Your task to perform on an android device: Open Youtube and go to the subscriptions tab Image 0: 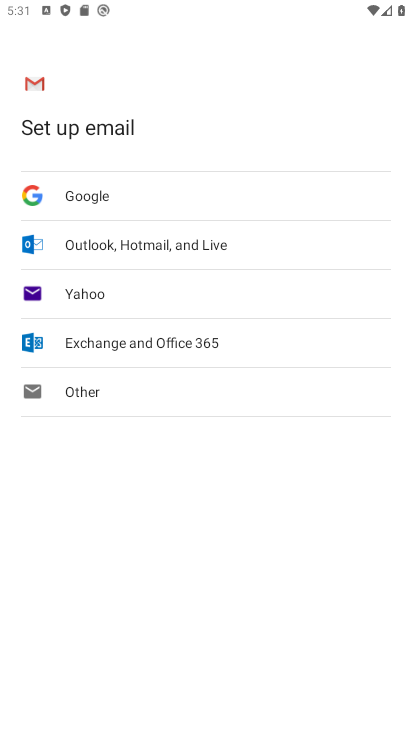
Step 0: press home button
Your task to perform on an android device: Open Youtube and go to the subscriptions tab Image 1: 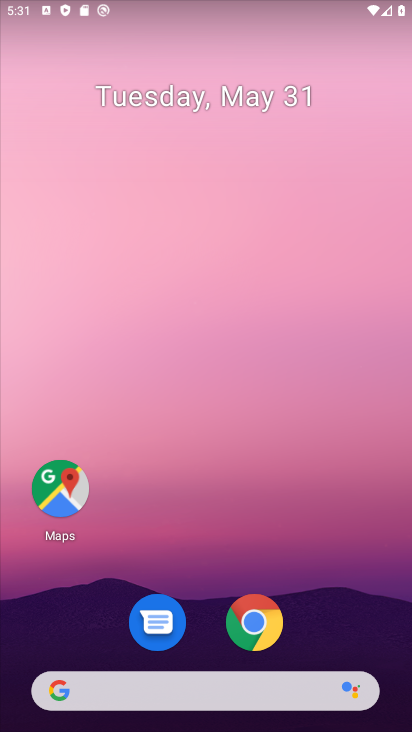
Step 1: drag from (284, 700) to (320, 85)
Your task to perform on an android device: Open Youtube and go to the subscriptions tab Image 2: 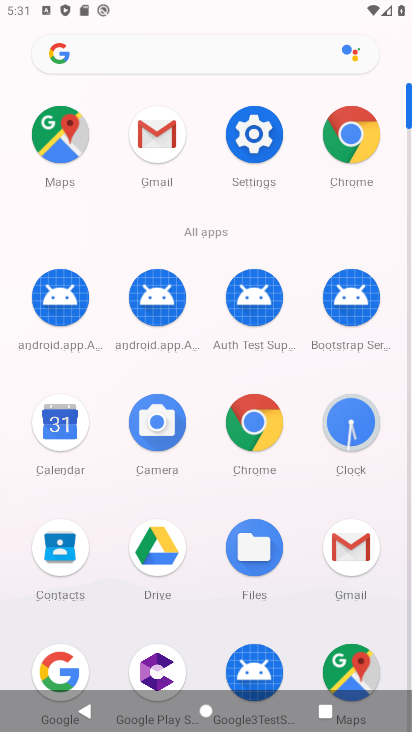
Step 2: drag from (325, 639) to (331, 180)
Your task to perform on an android device: Open Youtube and go to the subscriptions tab Image 3: 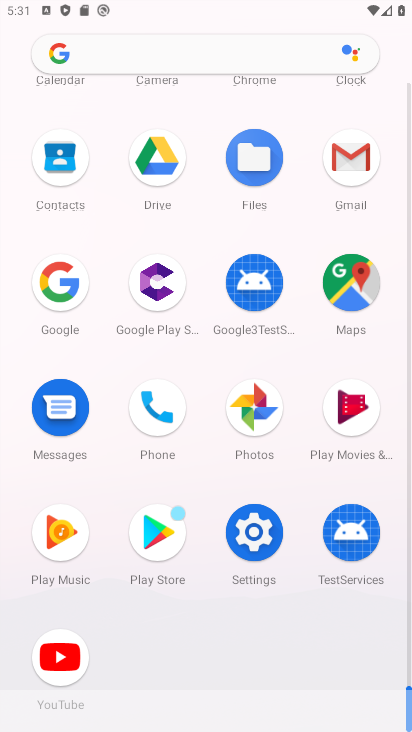
Step 3: click (62, 651)
Your task to perform on an android device: Open Youtube and go to the subscriptions tab Image 4: 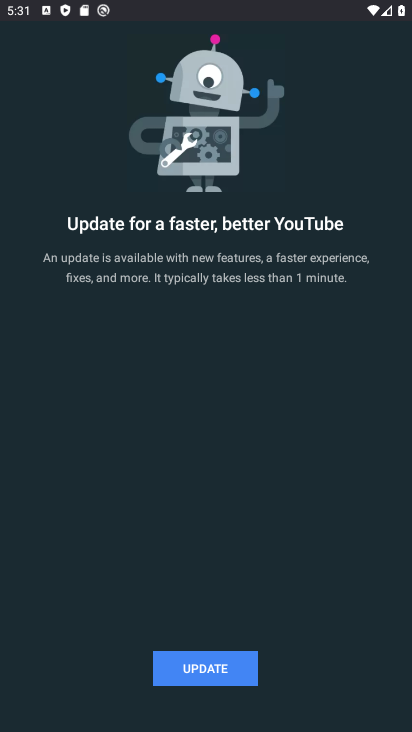
Step 4: click (185, 666)
Your task to perform on an android device: Open Youtube and go to the subscriptions tab Image 5: 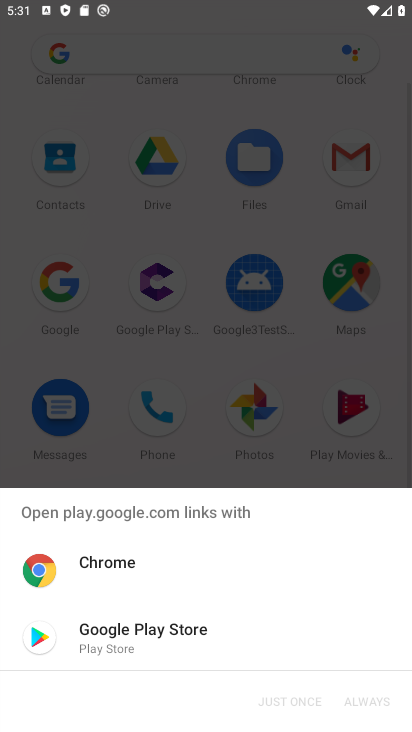
Step 5: click (201, 650)
Your task to perform on an android device: Open Youtube and go to the subscriptions tab Image 6: 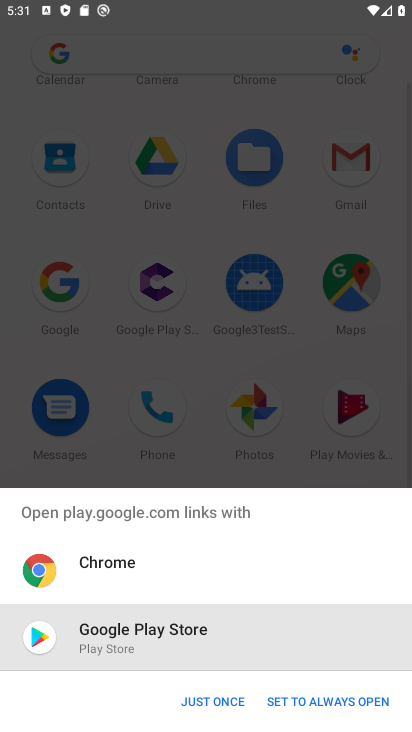
Step 6: click (216, 704)
Your task to perform on an android device: Open Youtube and go to the subscriptions tab Image 7: 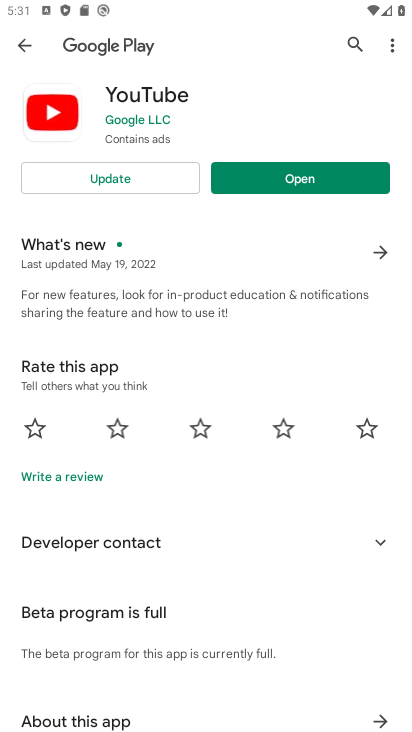
Step 7: click (210, 177)
Your task to perform on an android device: Open Youtube and go to the subscriptions tab Image 8: 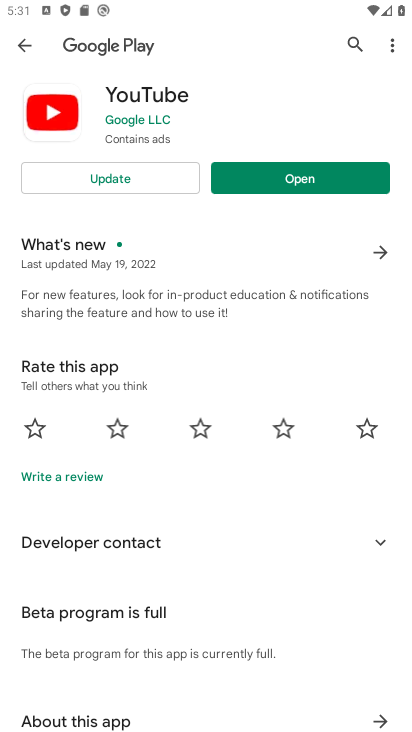
Step 8: click (171, 177)
Your task to perform on an android device: Open Youtube and go to the subscriptions tab Image 9: 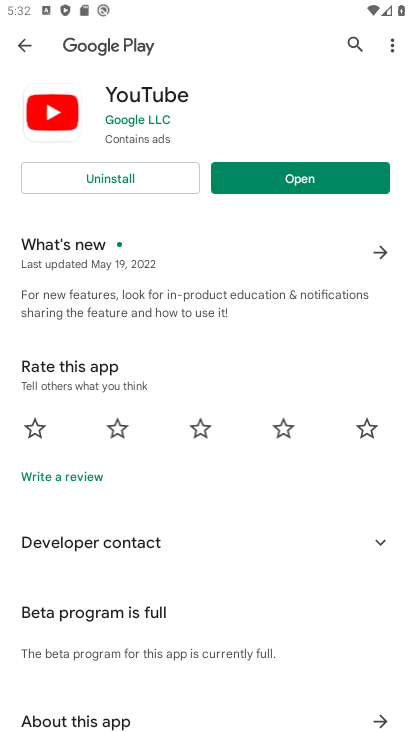
Step 9: click (281, 185)
Your task to perform on an android device: Open Youtube and go to the subscriptions tab Image 10: 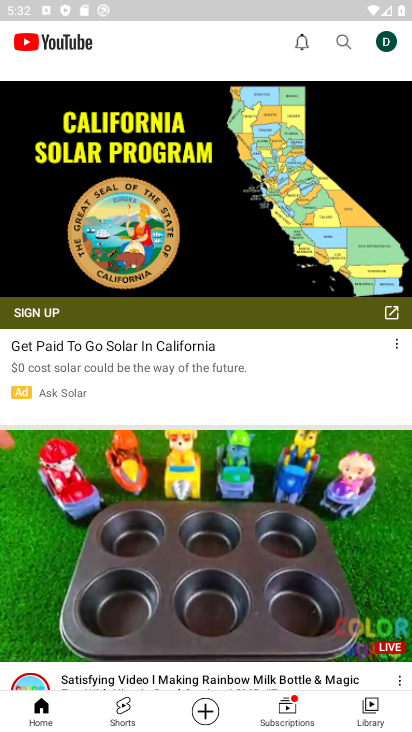
Step 10: click (286, 706)
Your task to perform on an android device: Open Youtube and go to the subscriptions tab Image 11: 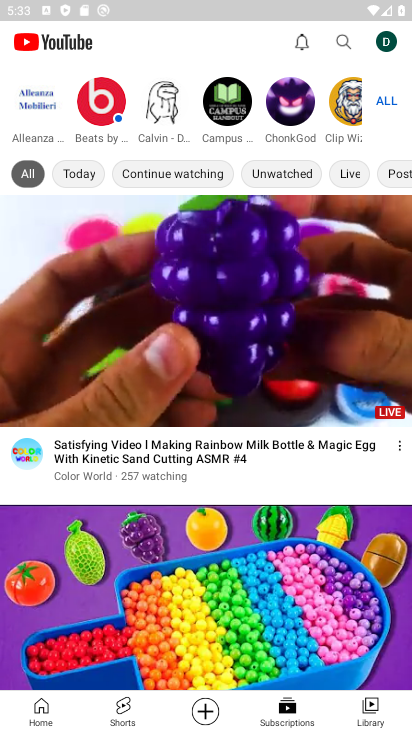
Step 11: task complete